Your task to perform on an android device: move an email to a new category in the gmail app Image 0: 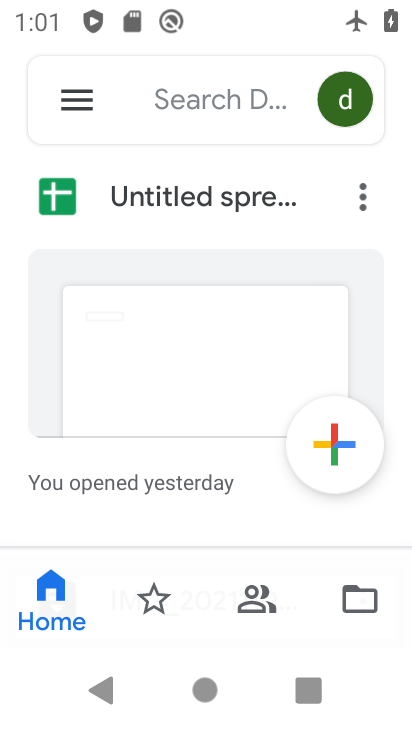
Step 0: press home button
Your task to perform on an android device: move an email to a new category in the gmail app Image 1: 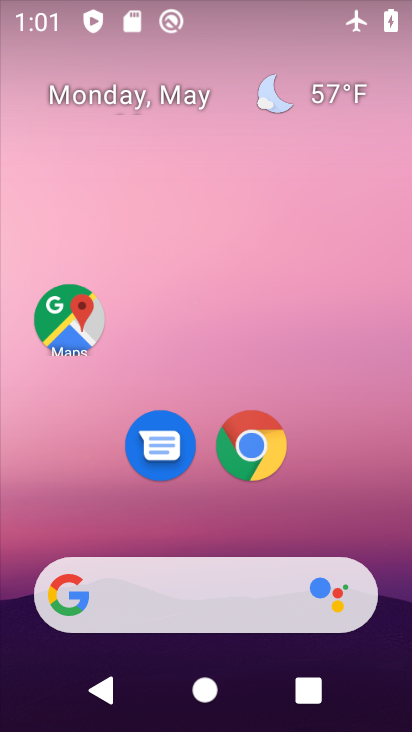
Step 1: drag from (391, 619) to (308, 74)
Your task to perform on an android device: move an email to a new category in the gmail app Image 2: 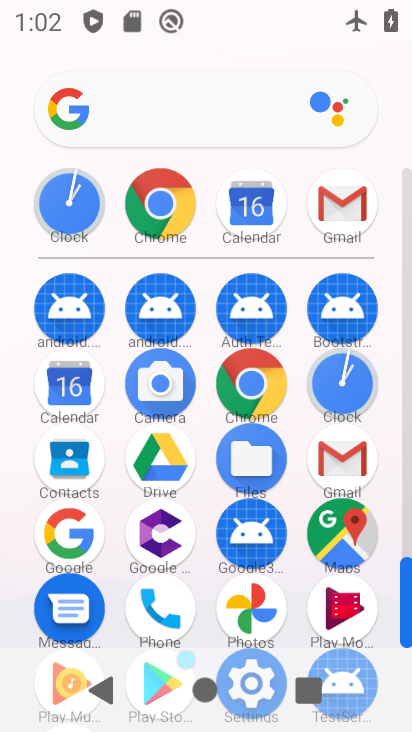
Step 2: click (348, 459)
Your task to perform on an android device: move an email to a new category in the gmail app Image 3: 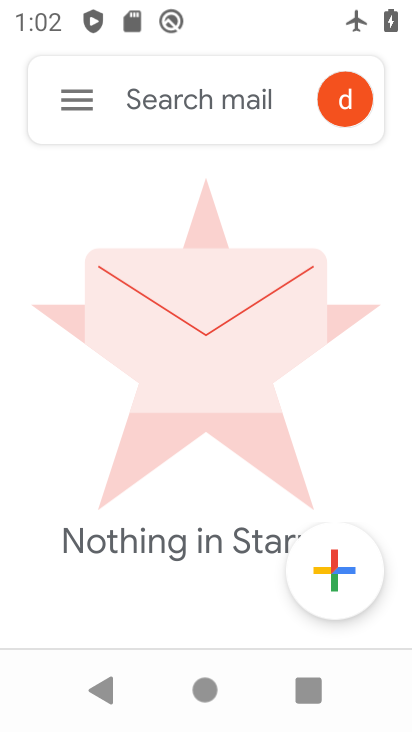
Step 3: task complete